Your task to perform on an android device: Search for dell alienware on costco, select the first entry, and add it to the cart. Image 0: 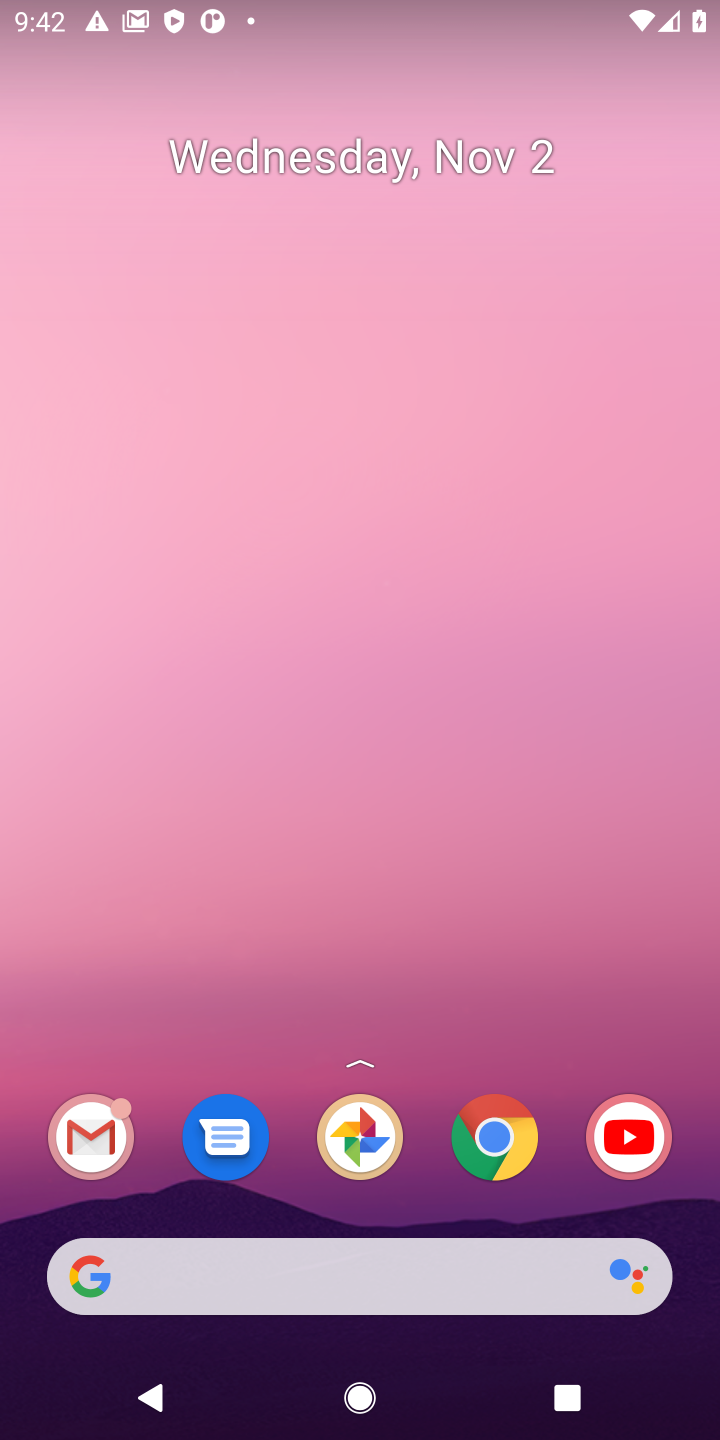
Step 0: click (495, 1142)
Your task to perform on an android device: Search for dell alienware on costco, select the first entry, and add it to the cart. Image 1: 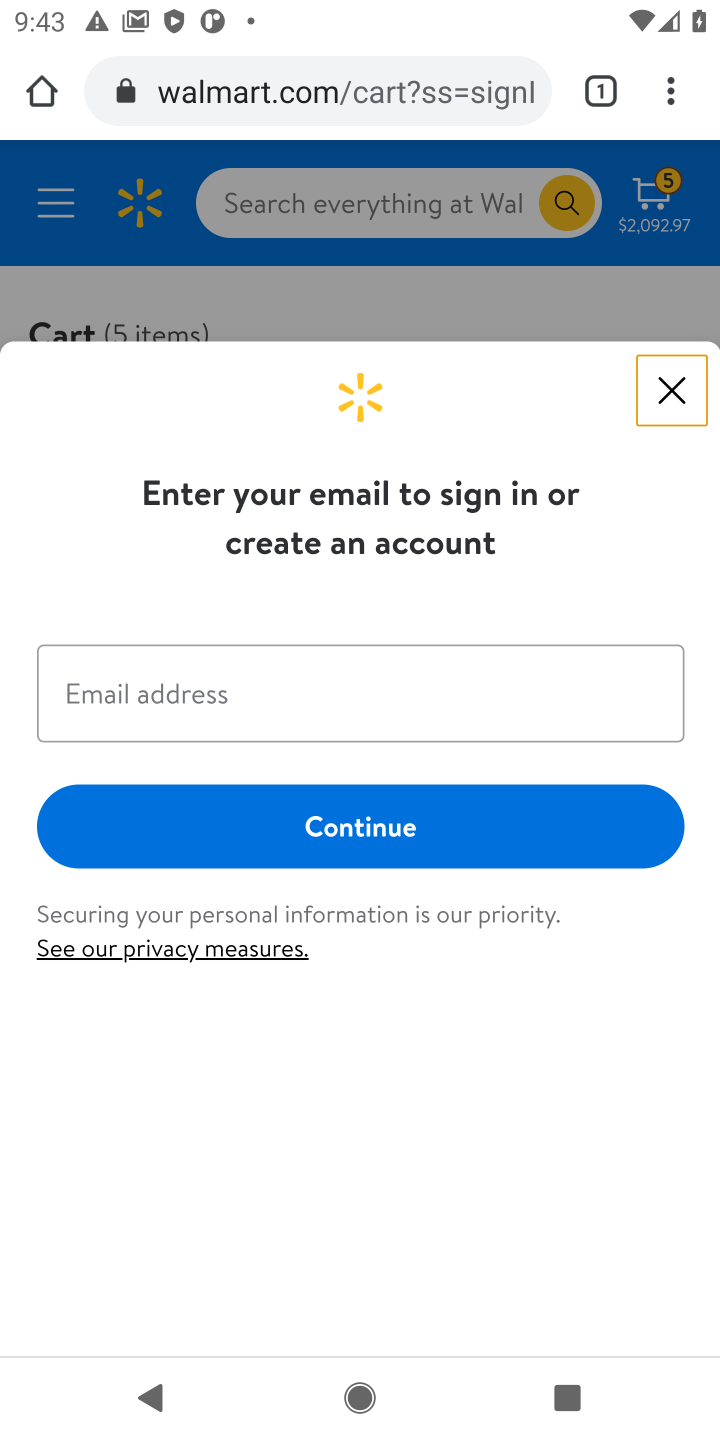
Step 1: click (349, 62)
Your task to perform on an android device: Search for dell alienware on costco, select the first entry, and add it to the cart. Image 2: 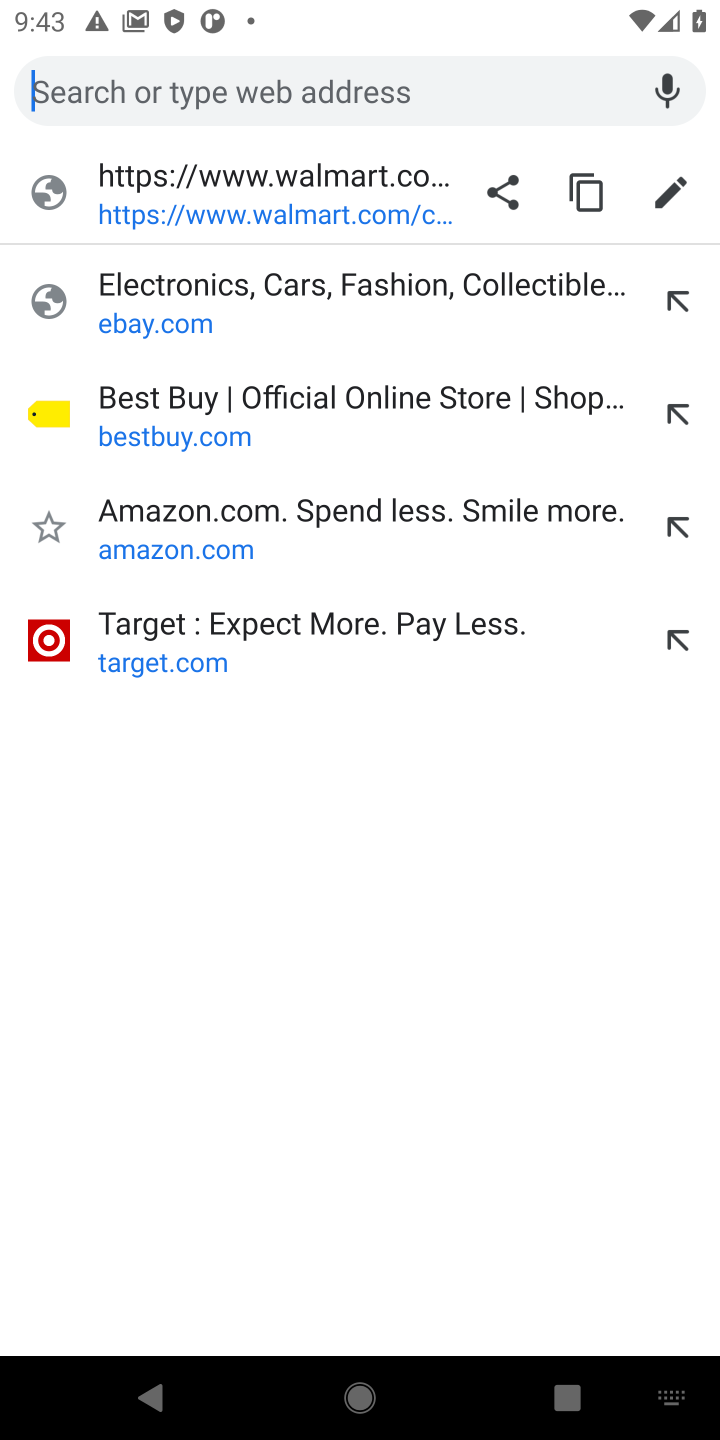
Step 2: type "costco"
Your task to perform on an android device: Search for dell alienware on costco, select the first entry, and add it to the cart. Image 3: 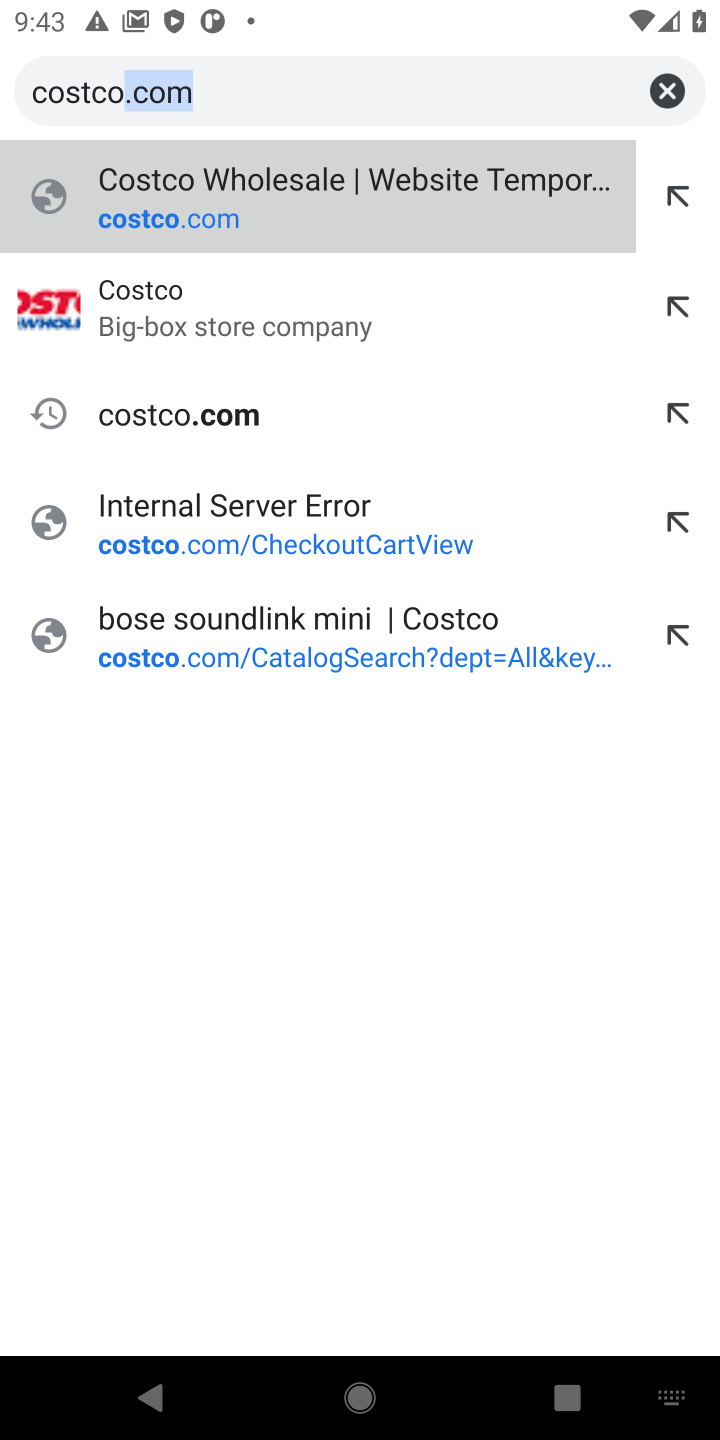
Step 3: click (213, 211)
Your task to perform on an android device: Search for dell alienware on costco, select the first entry, and add it to the cart. Image 4: 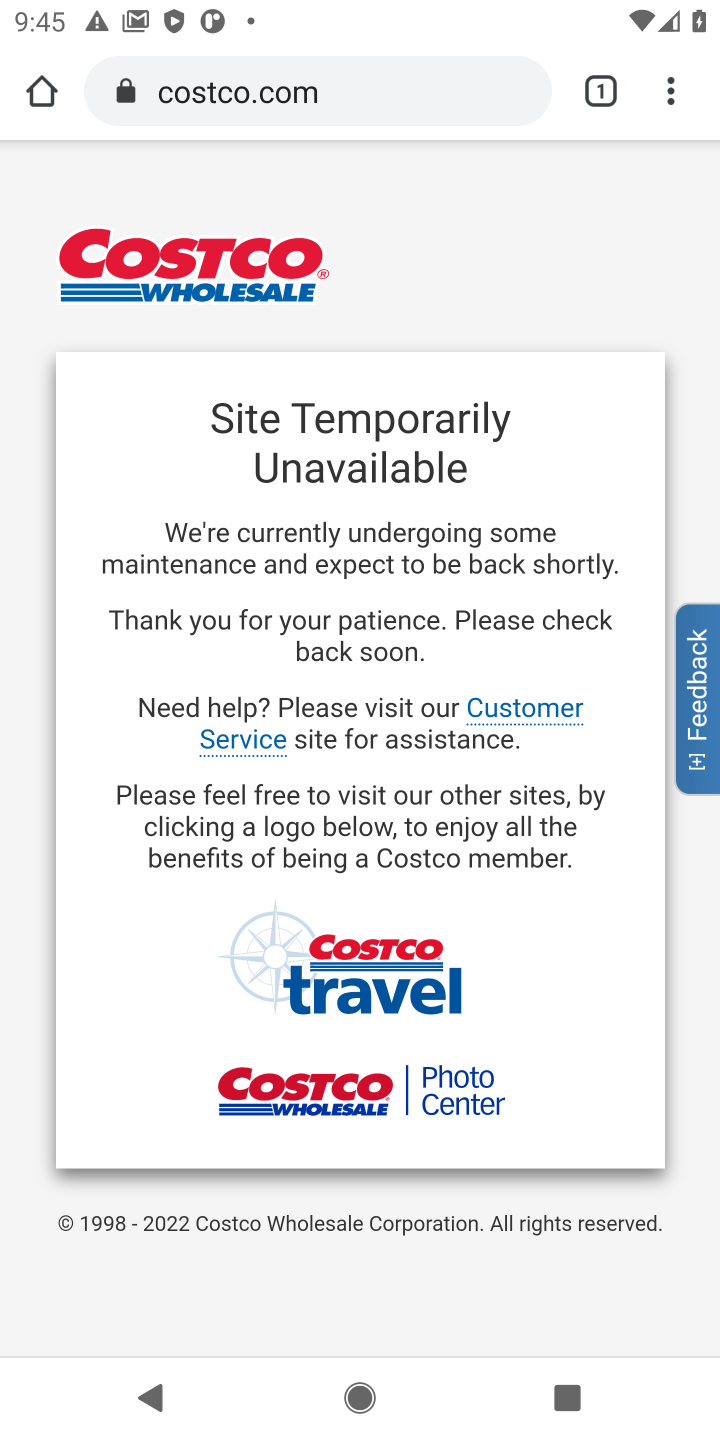
Step 4: task complete